Your task to perform on an android device: What's on my calendar tomorrow? Image 0: 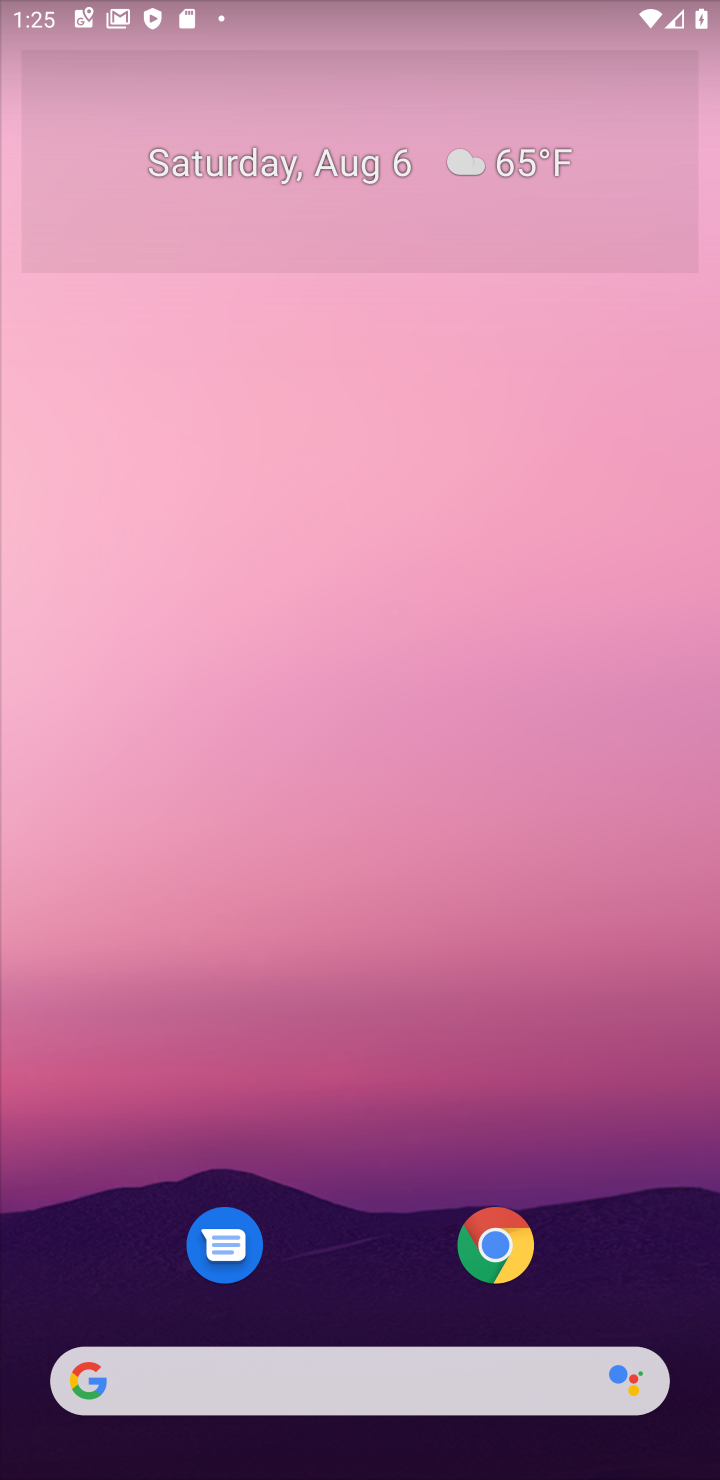
Step 0: drag from (254, 465) to (216, 373)
Your task to perform on an android device: What's on my calendar tomorrow? Image 1: 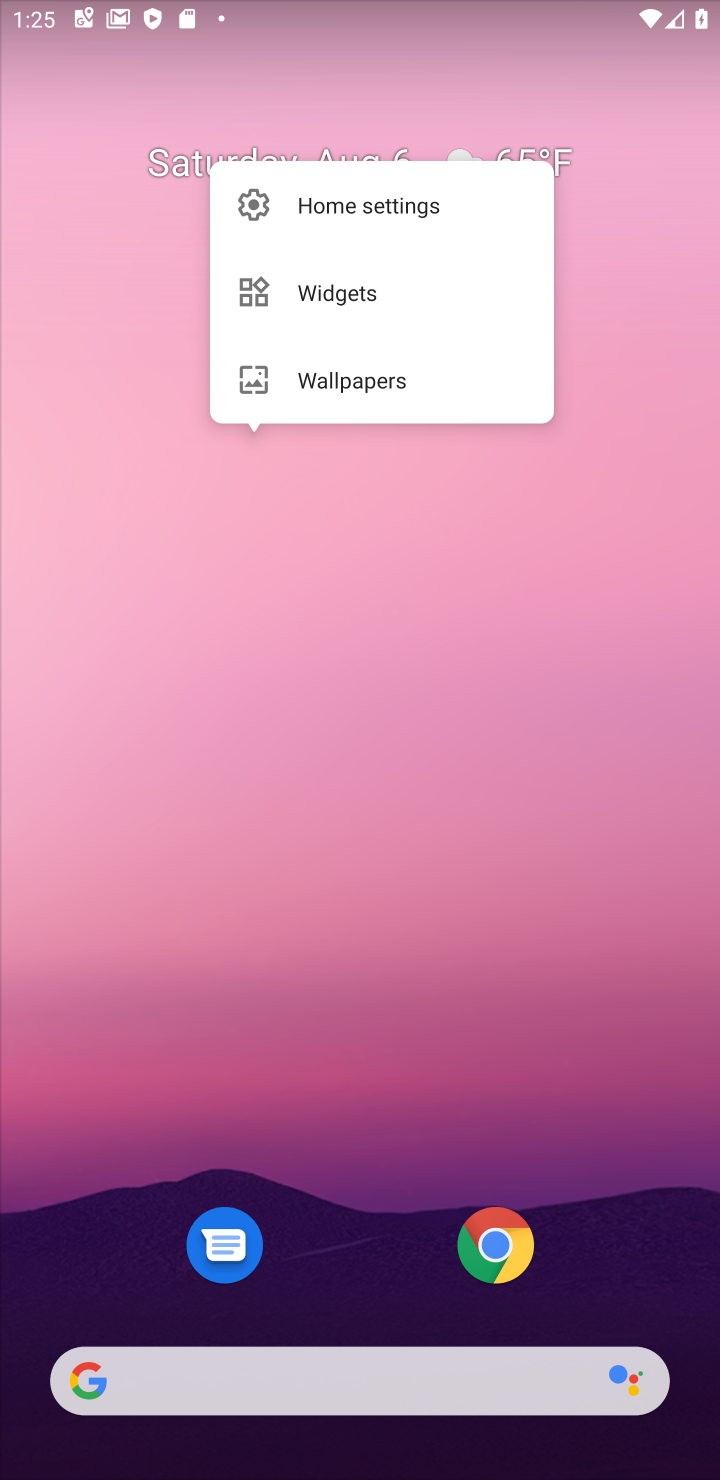
Step 1: click (358, 824)
Your task to perform on an android device: What's on my calendar tomorrow? Image 2: 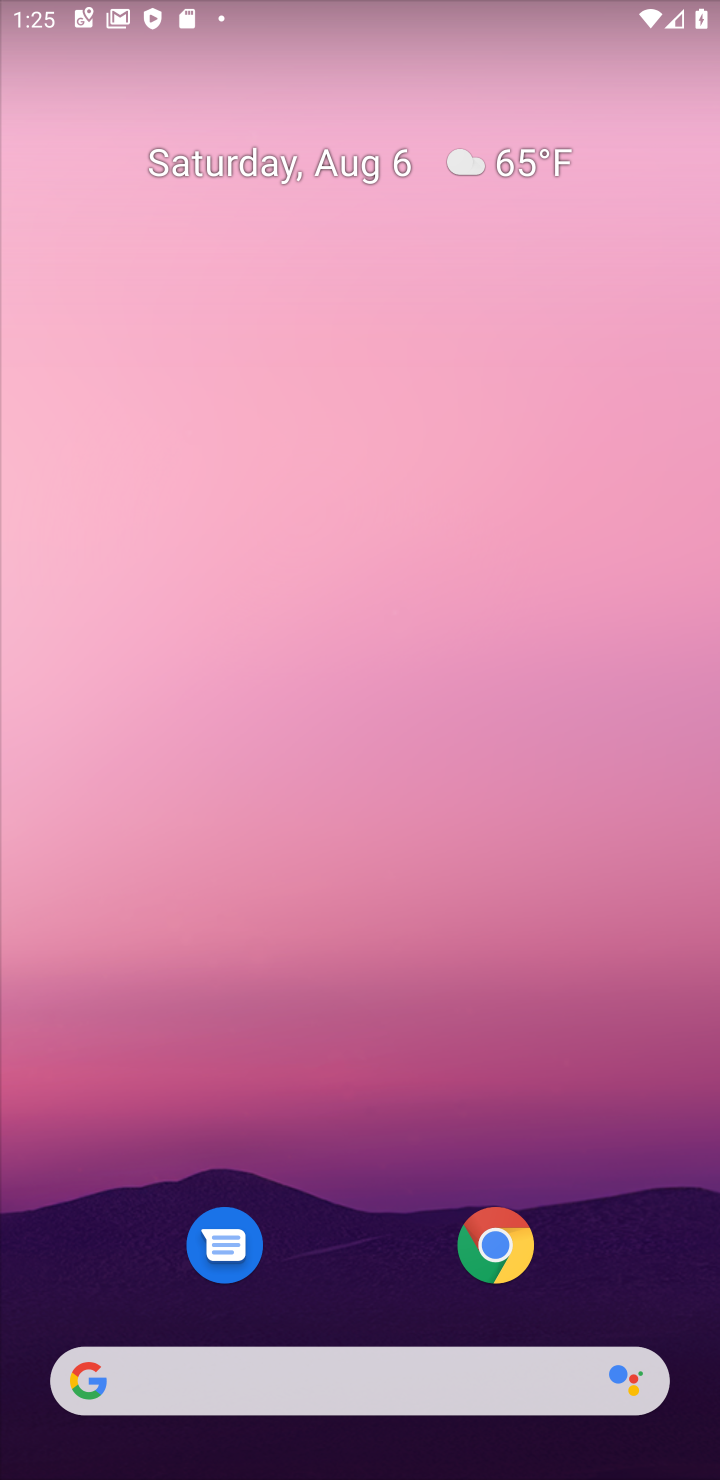
Step 2: drag from (331, 376) to (370, 12)
Your task to perform on an android device: What's on my calendar tomorrow? Image 3: 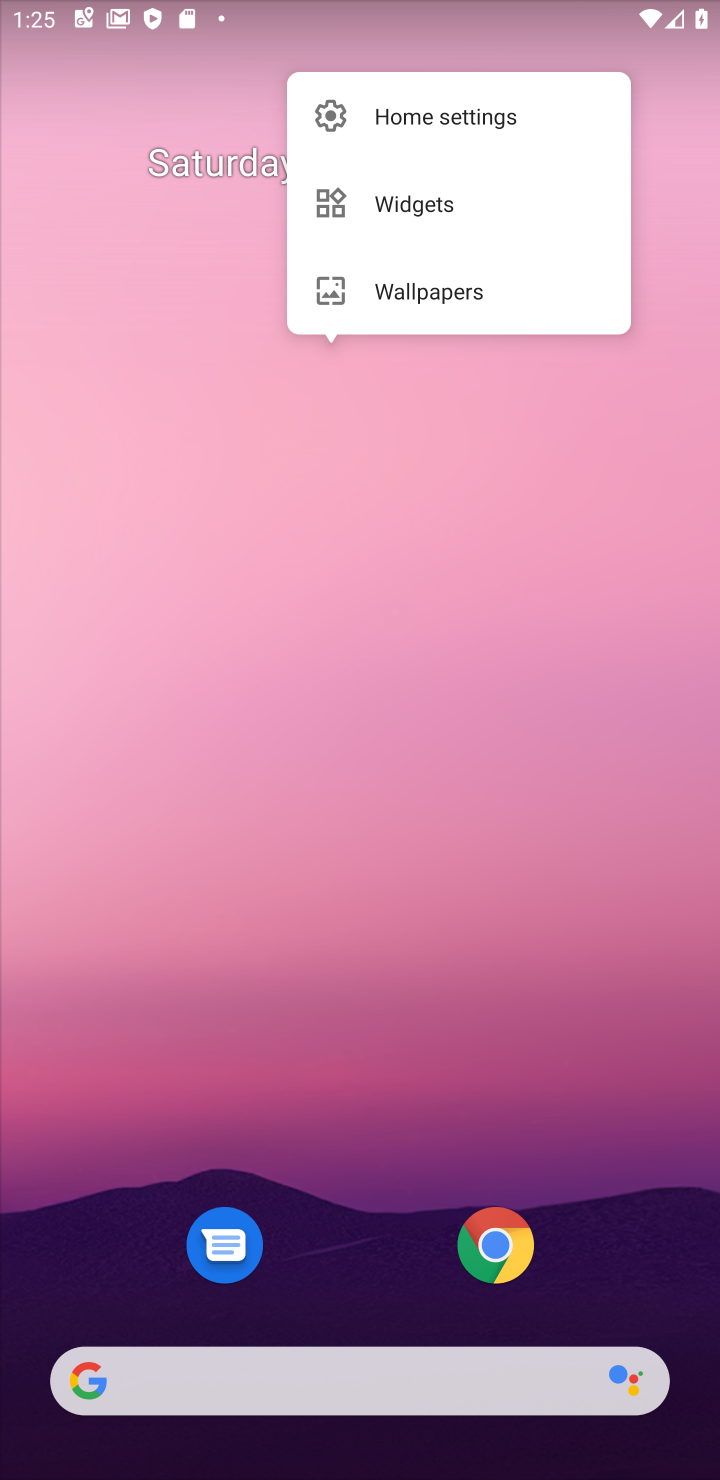
Step 3: click (412, 571)
Your task to perform on an android device: What's on my calendar tomorrow? Image 4: 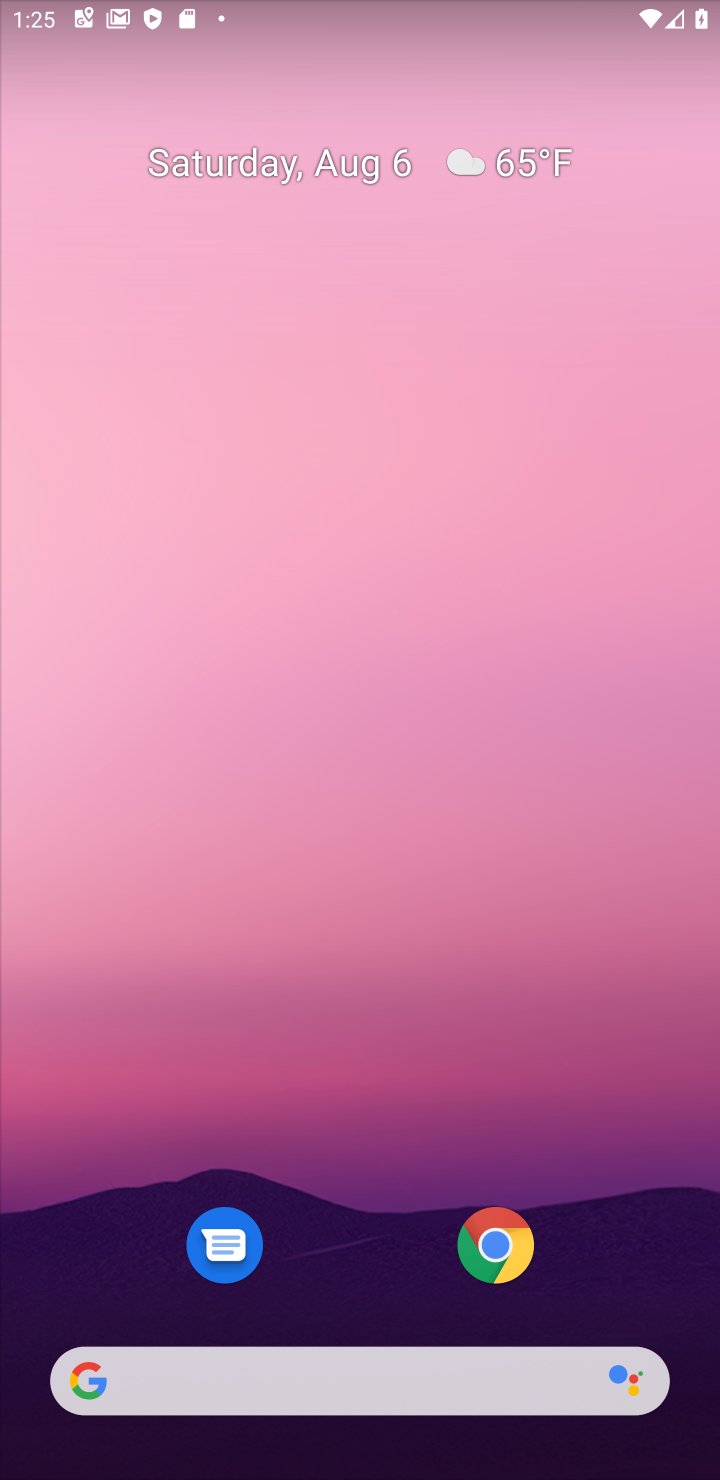
Step 4: drag from (365, 1174) to (174, 244)
Your task to perform on an android device: What's on my calendar tomorrow? Image 5: 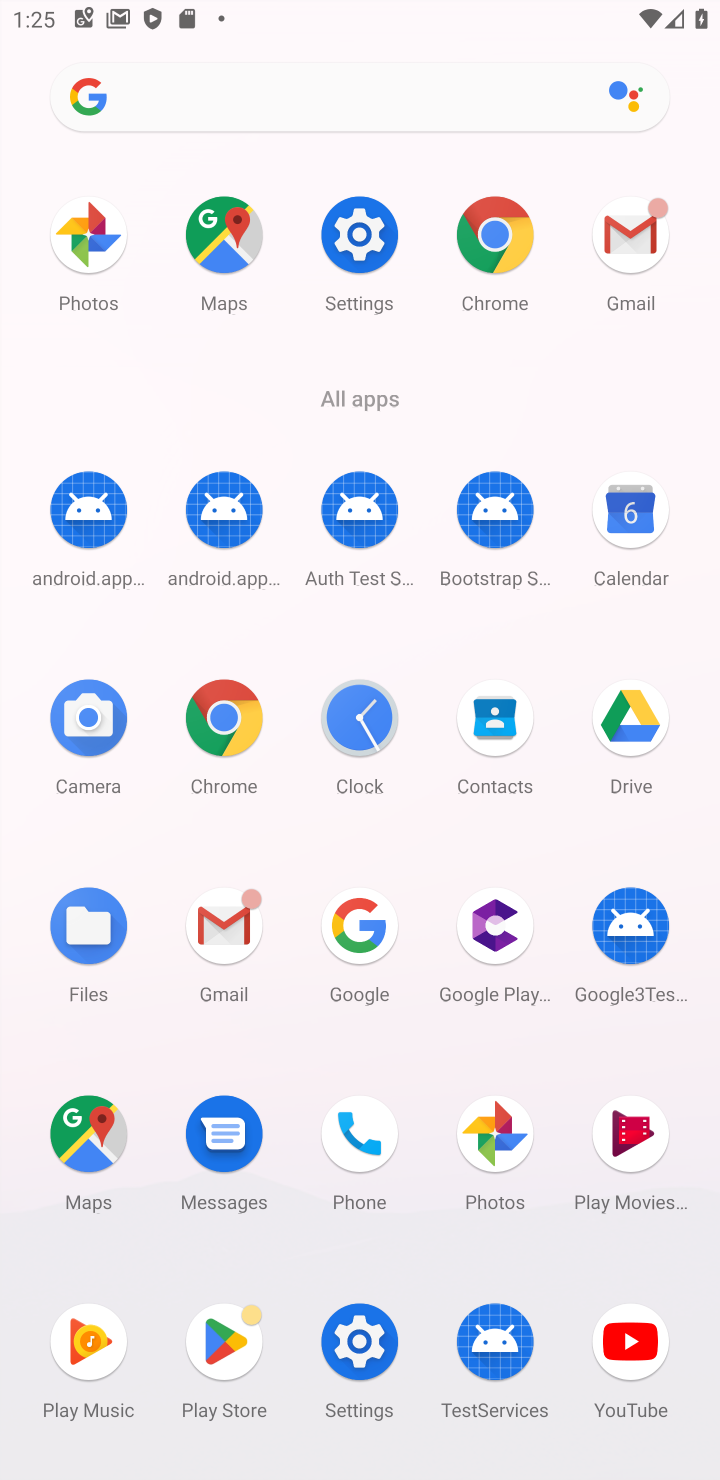
Step 5: click (603, 507)
Your task to perform on an android device: What's on my calendar tomorrow? Image 6: 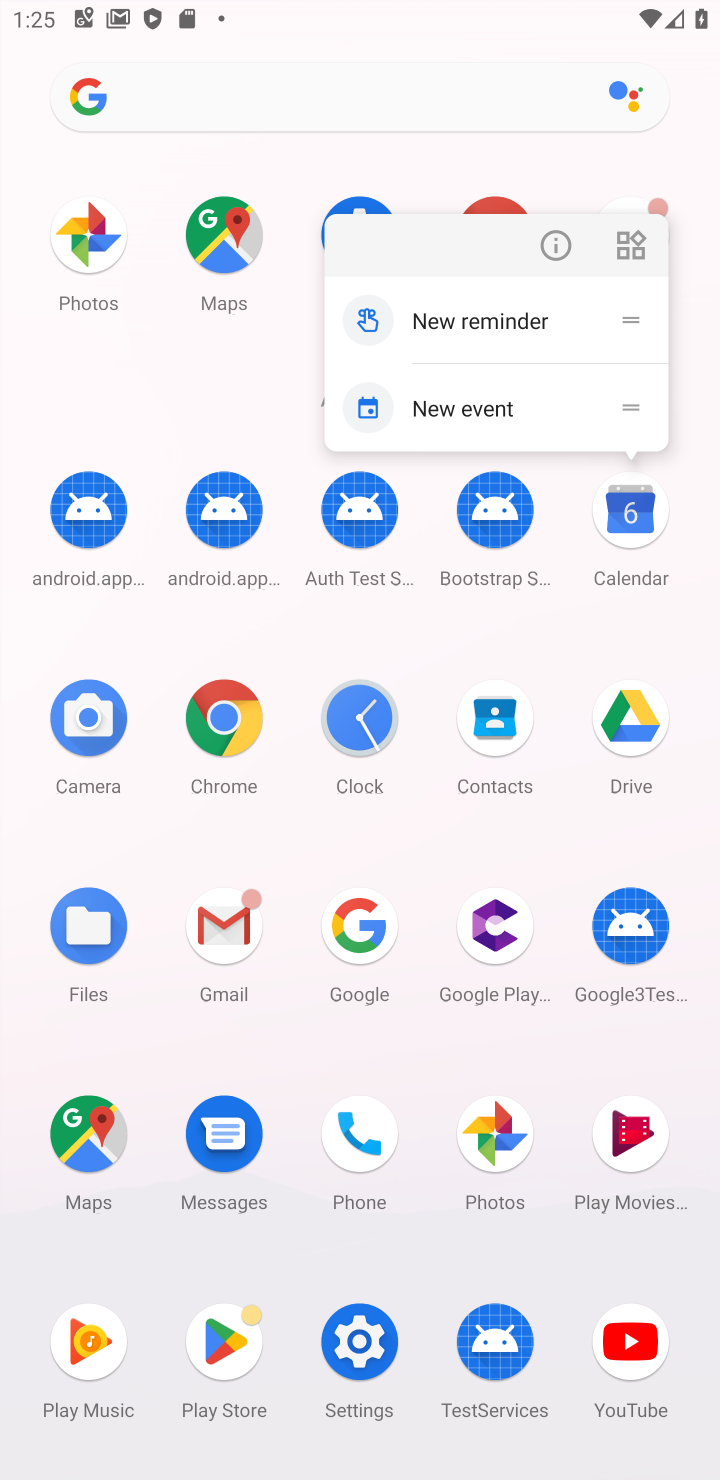
Step 6: click (635, 518)
Your task to perform on an android device: What's on my calendar tomorrow? Image 7: 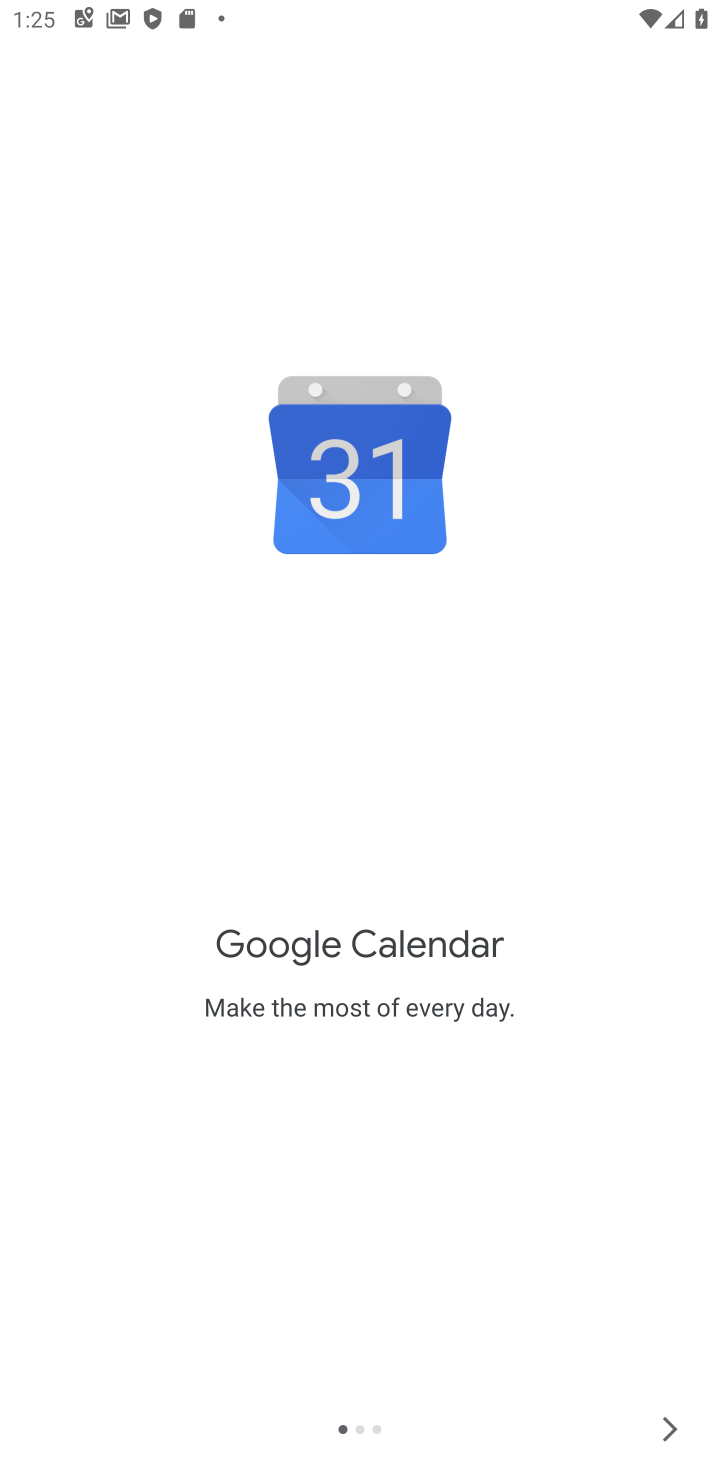
Step 7: click (667, 1441)
Your task to perform on an android device: What's on my calendar tomorrow? Image 8: 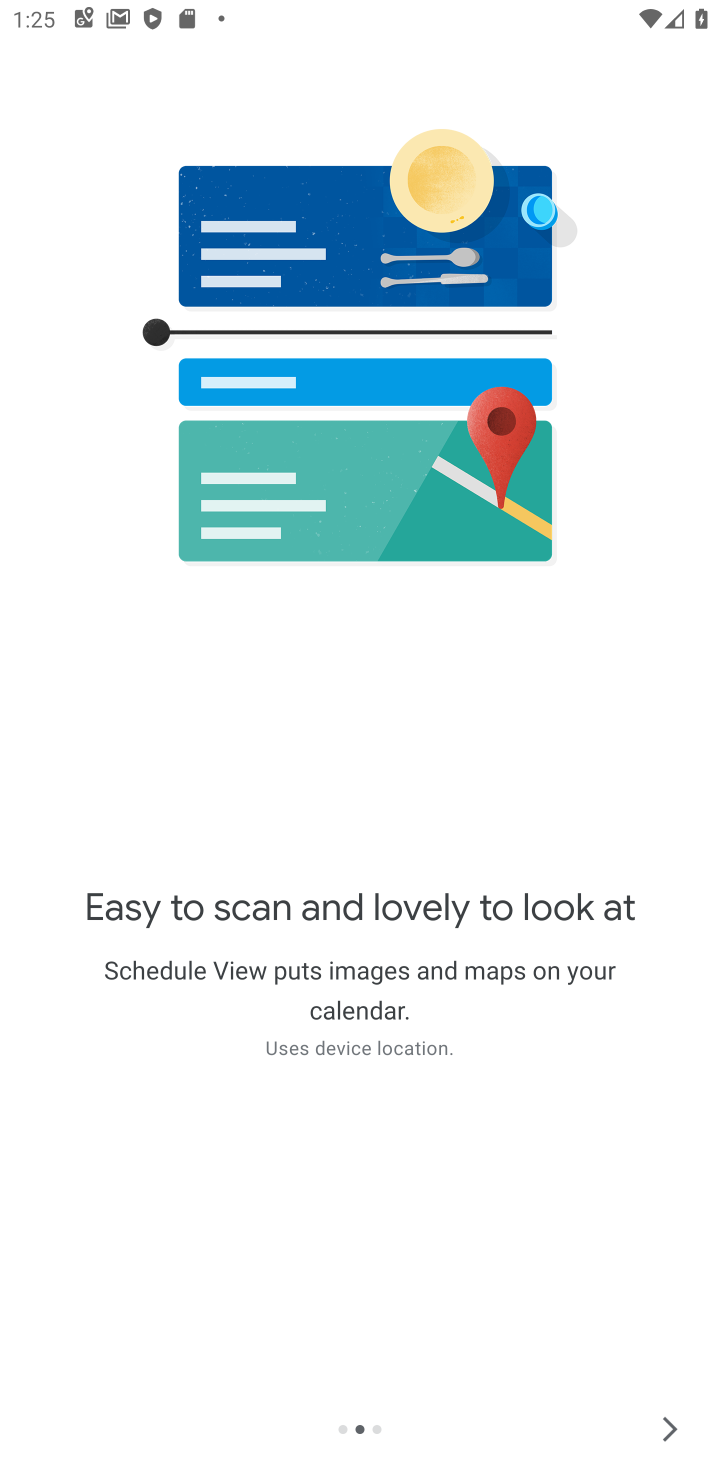
Step 8: click (664, 1437)
Your task to perform on an android device: What's on my calendar tomorrow? Image 9: 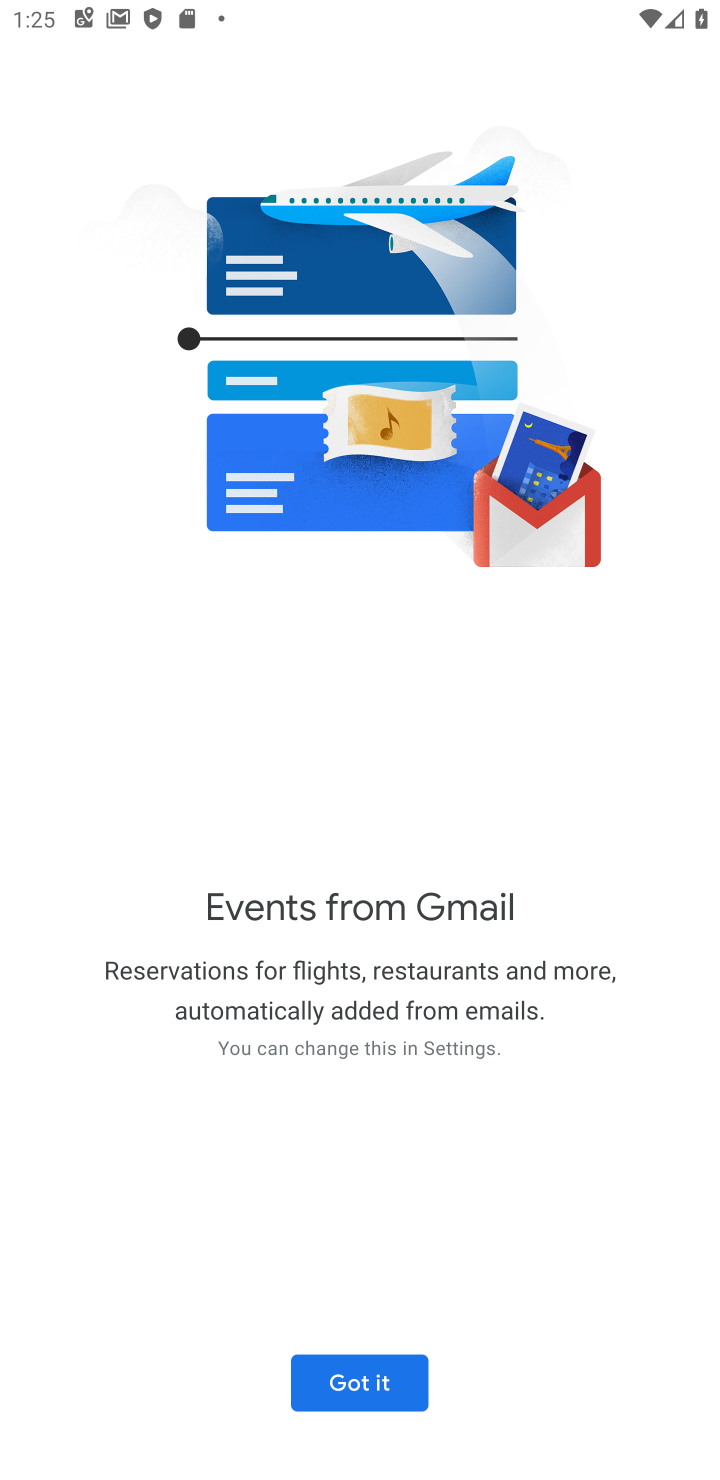
Step 9: click (664, 1437)
Your task to perform on an android device: What's on my calendar tomorrow? Image 10: 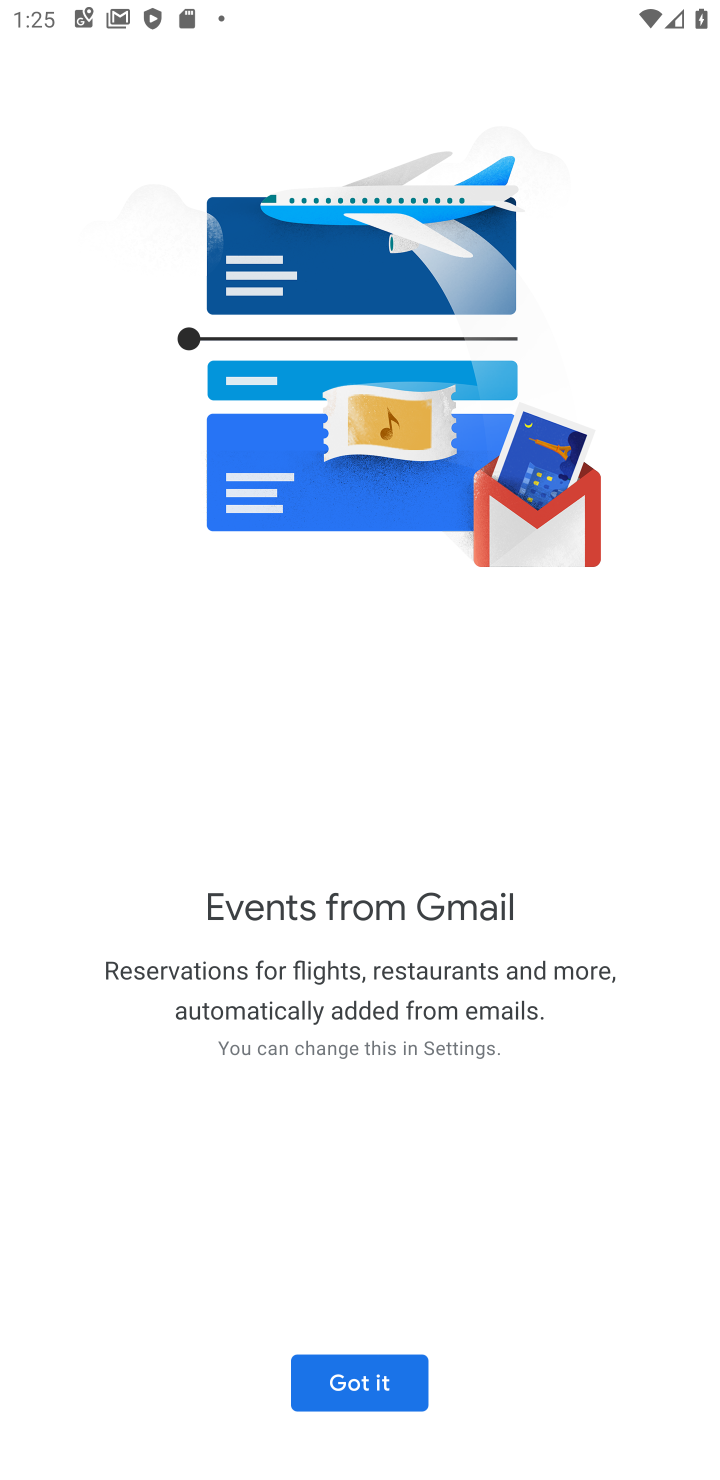
Step 10: click (415, 1369)
Your task to perform on an android device: What's on my calendar tomorrow? Image 11: 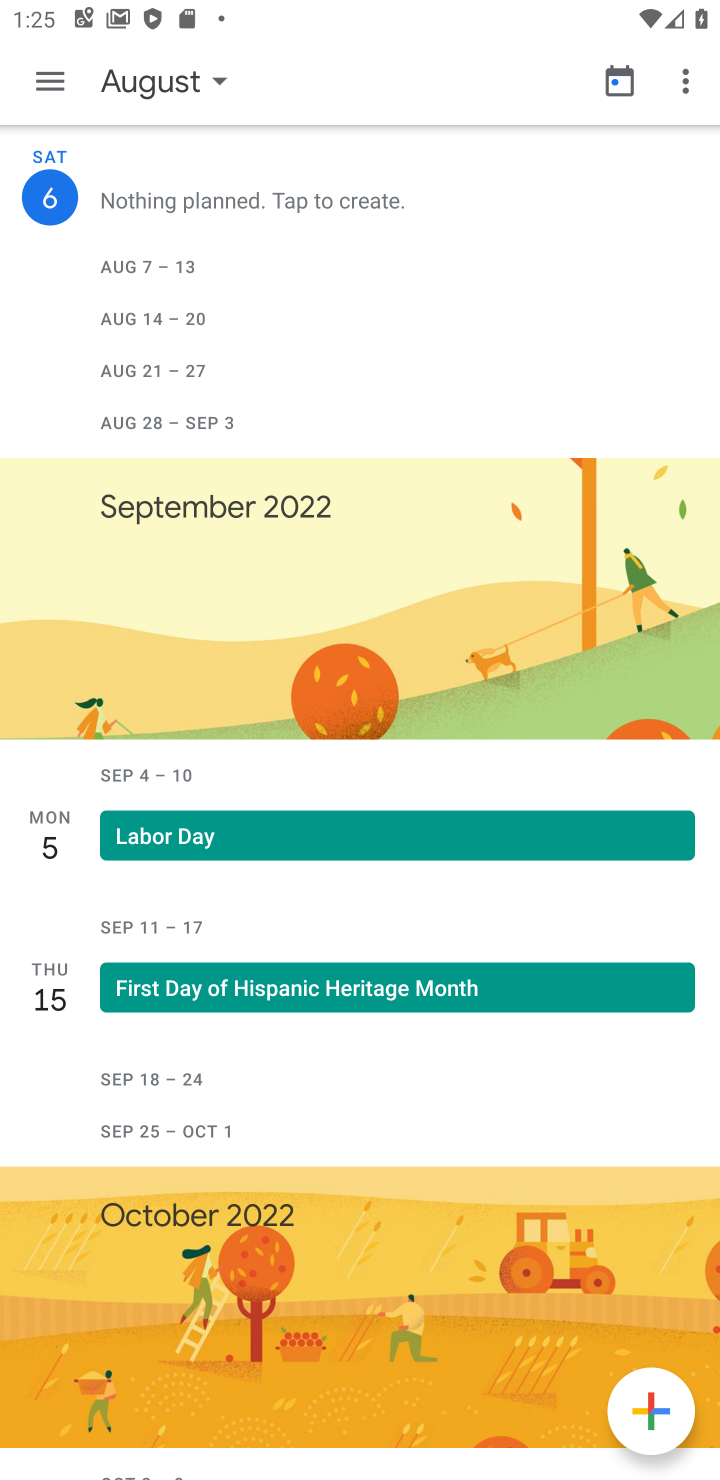
Step 11: task complete